Your task to perform on an android device: Open wifi settings Image 0: 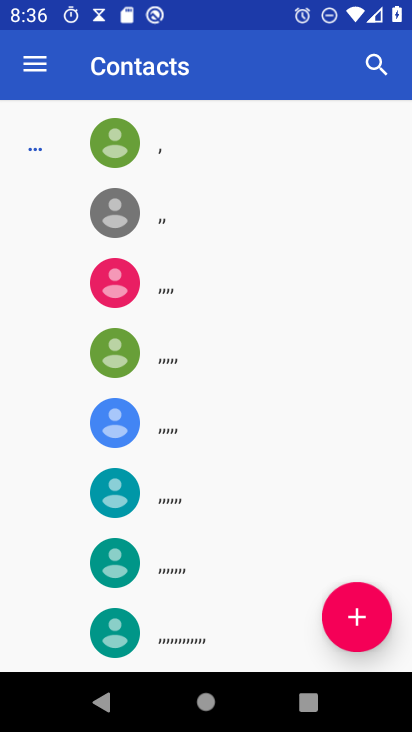
Step 0: press home button
Your task to perform on an android device: Open wifi settings Image 1: 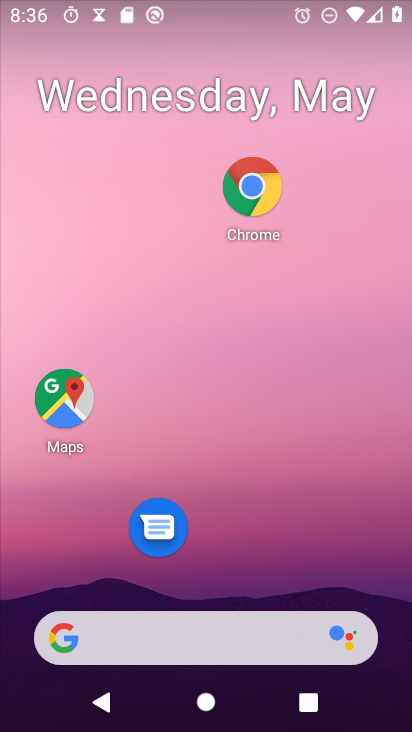
Step 1: drag from (194, 9) to (161, 681)
Your task to perform on an android device: Open wifi settings Image 2: 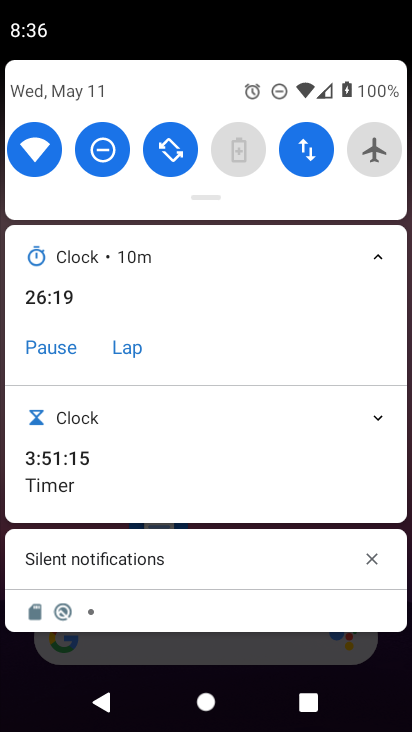
Step 2: click (26, 141)
Your task to perform on an android device: Open wifi settings Image 3: 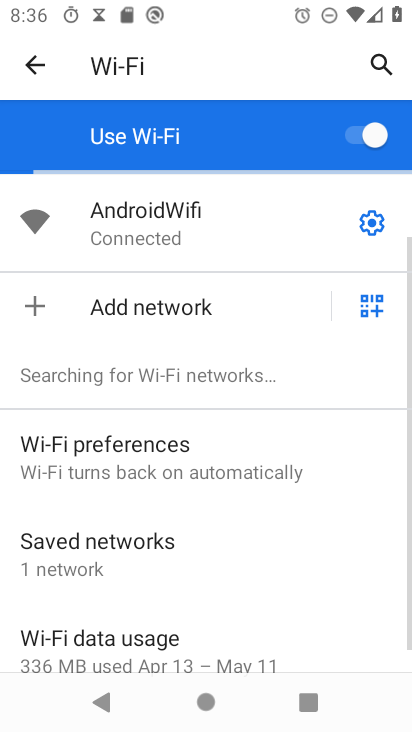
Step 3: task complete